Your task to perform on an android device: Open Amazon Image 0: 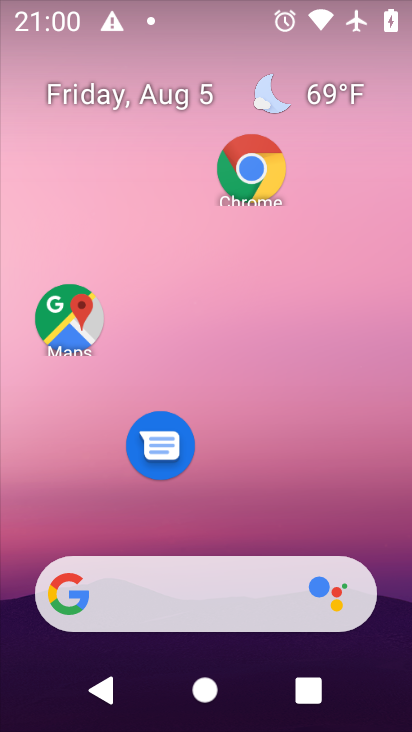
Step 0: click (254, 185)
Your task to perform on an android device: Open Amazon Image 1: 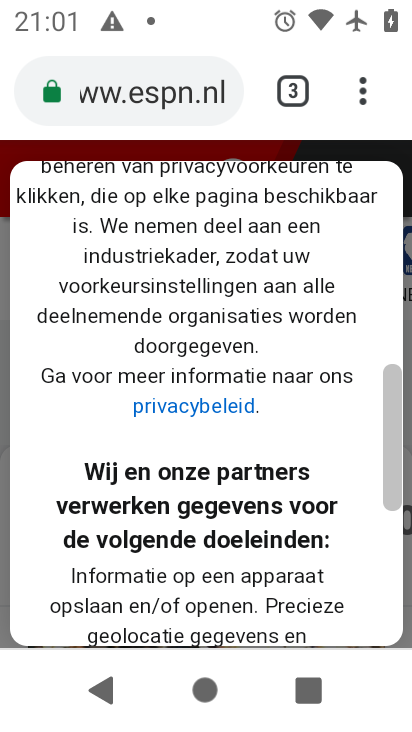
Step 1: click (289, 100)
Your task to perform on an android device: Open Amazon Image 2: 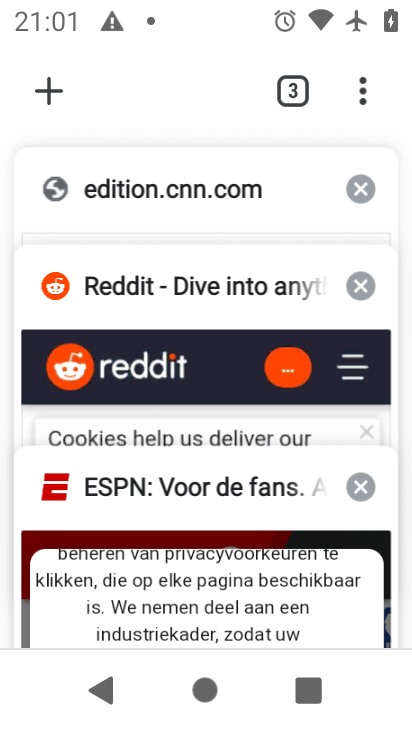
Step 2: click (51, 90)
Your task to perform on an android device: Open Amazon Image 3: 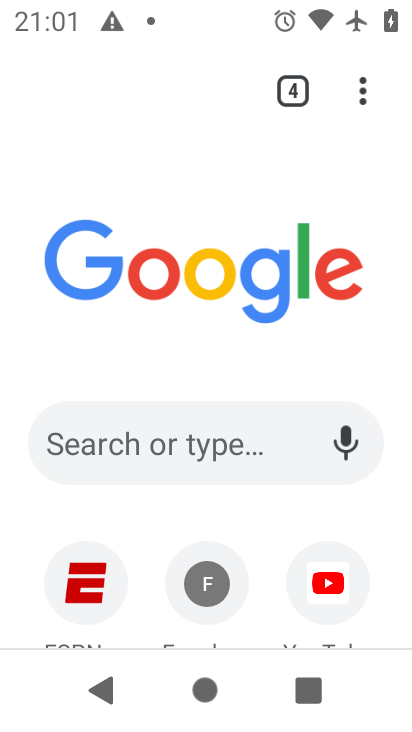
Step 3: drag from (245, 520) to (259, 206)
Your task to perform on an android device: Open Amazon Image 4: 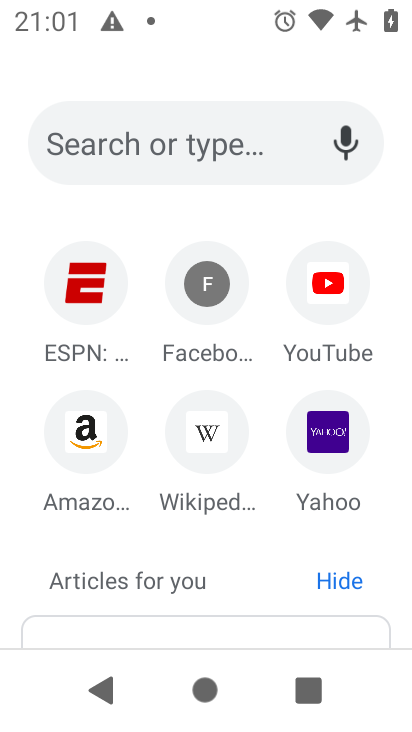
Step 4: click (103, 414)
Your task to perform on an android device: Open Amazon Image 5: 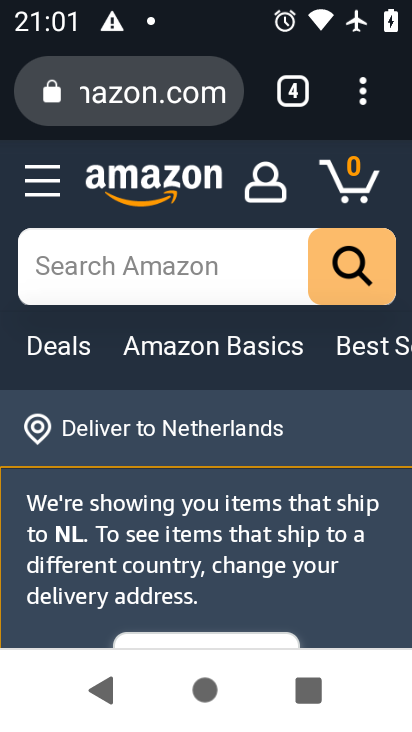
Step 5: task complete